Your task to perform on an android device: Open Google Chrome and open the bookmarks view Image 0: 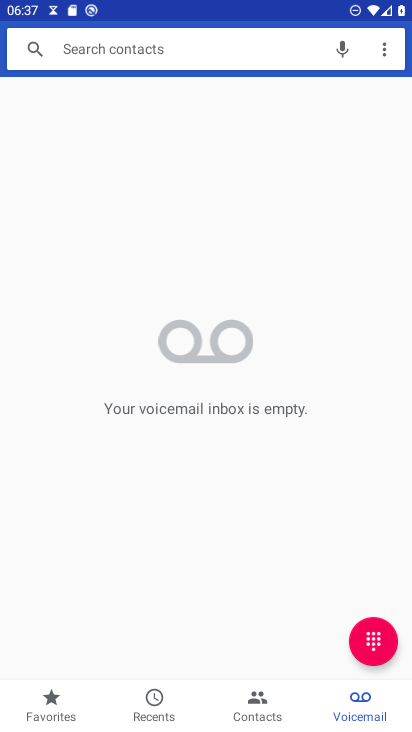
Step 0: click (310, 682)
Your task to perform on an android device: Open Google Chrome and open the bookmarks view Image 1: 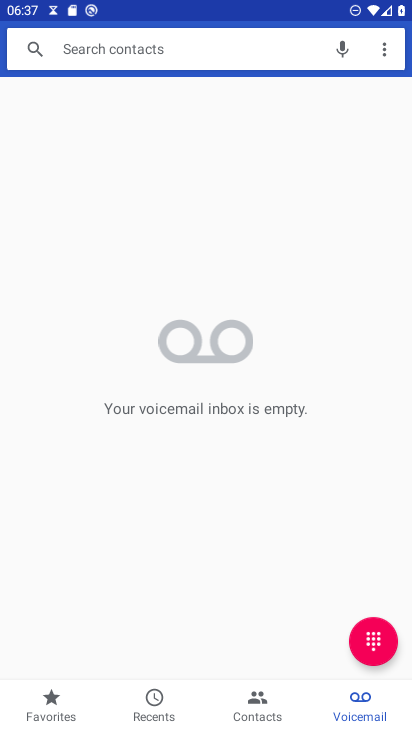
Step 1: press home button
Your task to perform on an android device: Open Google Chrome and open the bookmarks view Image 2: 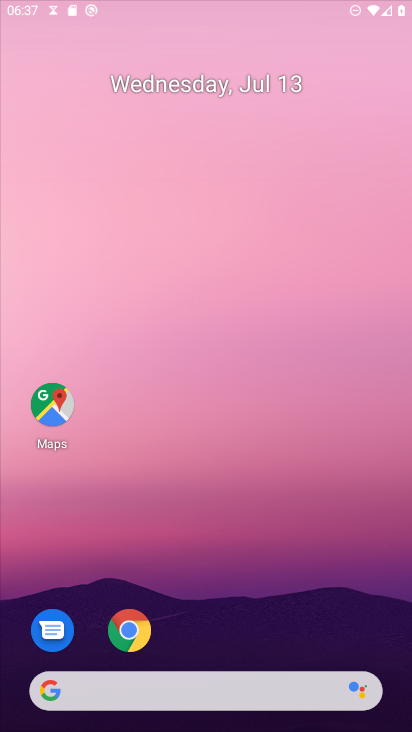
Step 2: drag from (296, 578) to (282, 81)
Your task to perform on an android device: Open Google Chrome and open the bookmarks view Image 3: 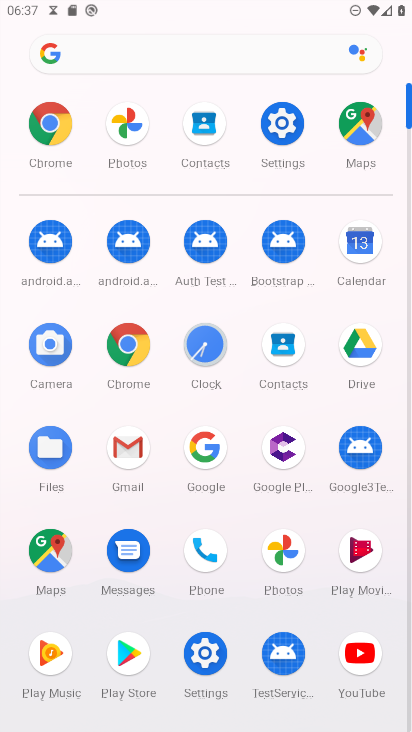
Step 3: click (139, 363)
Your task to perform on an android device: Open Google Chrome and open the bookmarks view Image 4: 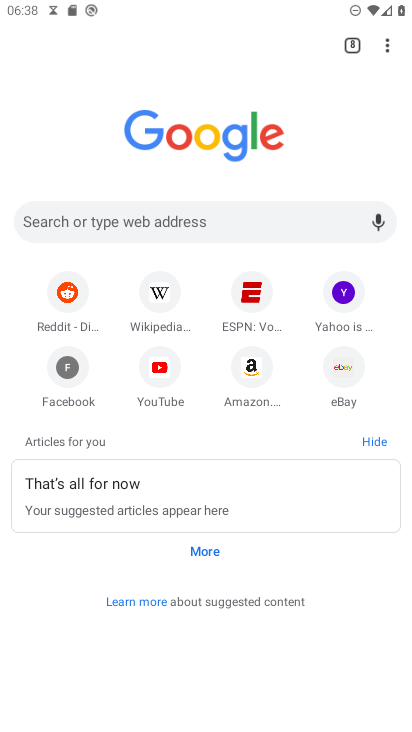
Step 4: task complete